Your task to perform on an android device: open sync settings in chrome Image 0: 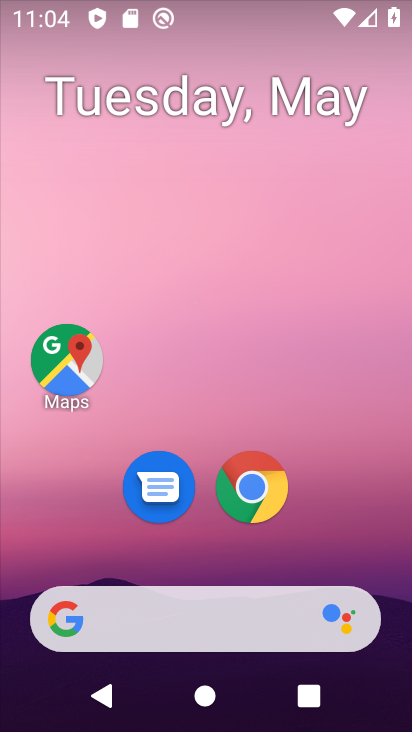
Step 0: drag from (313, 576) to (318, 200)
Your task to perform on an android device: open sync settings in chrome Image 1: 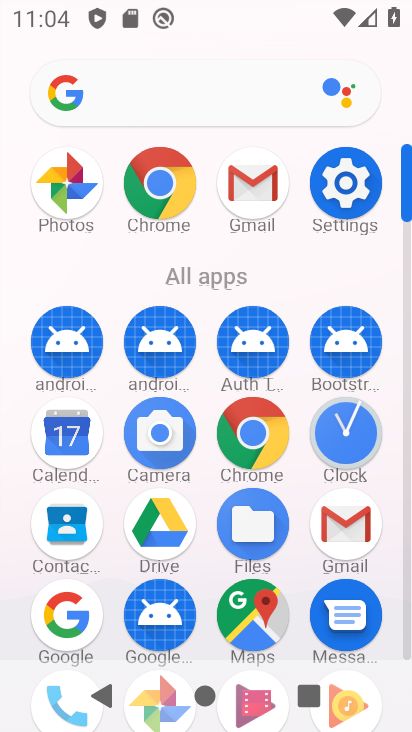
Step 1: click (166, 175)
Your task to perform on an android device: open sync settings in chrome Image 2: 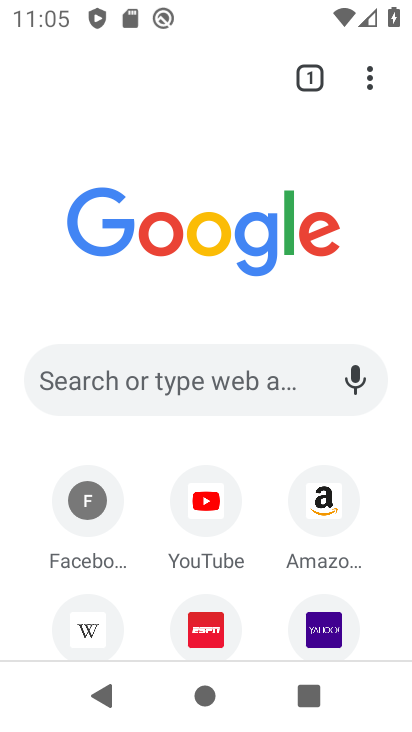
Step 2: click (385, 71)
Your task to perform on an android device: open sync settings in chrome Image 3: 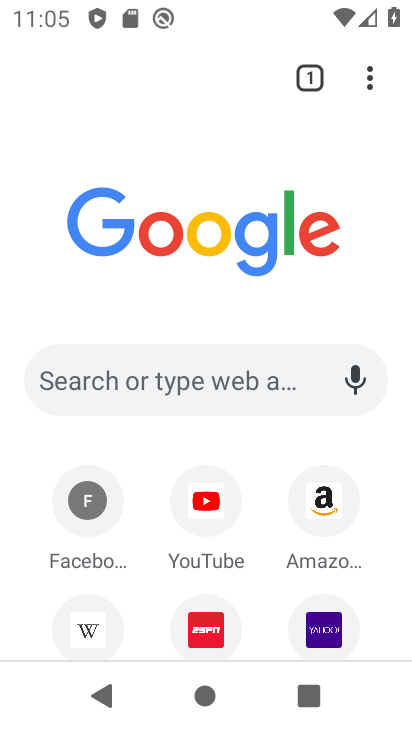
Step 3: click (373, 77)
Your task to perform on an android device: open sync settings in chrome Image 4: 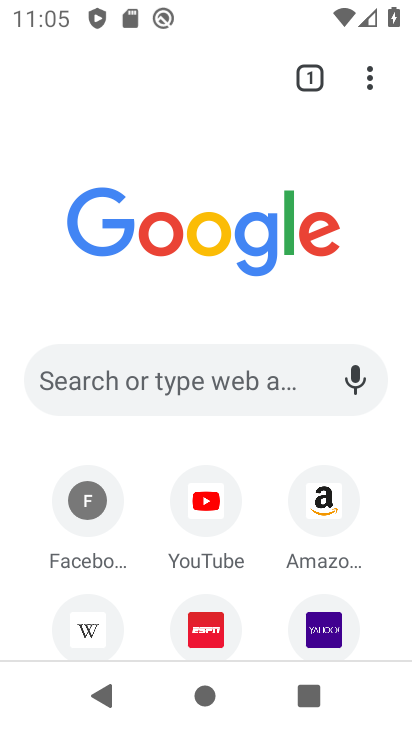
Step 4: click (377, 76)
Your task to perform on an android device: open sync settings in chrome Image 5: 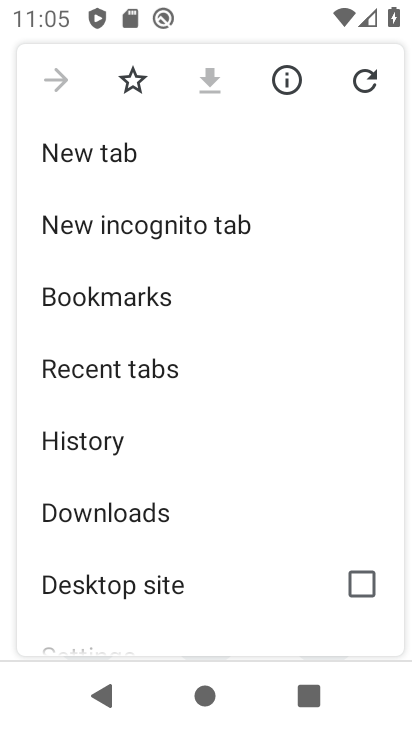
Step 5: drag from (179, 556) to (232, 355)
Your task to perform on an android device: open sync settings in chrome Image 6: 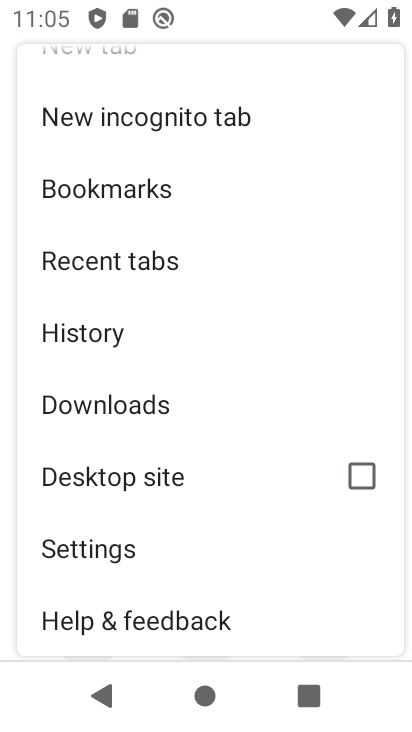
Step 6: click (97, 536)
Your task to perform on an android device: open sync settings in chrome Image 7: 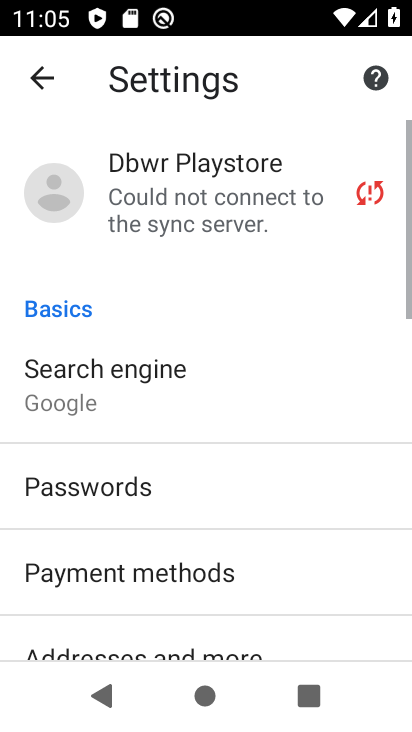
Step 7: click (122, 188)
Your task to perform on an android device: open sync settings in chrome Image 8: 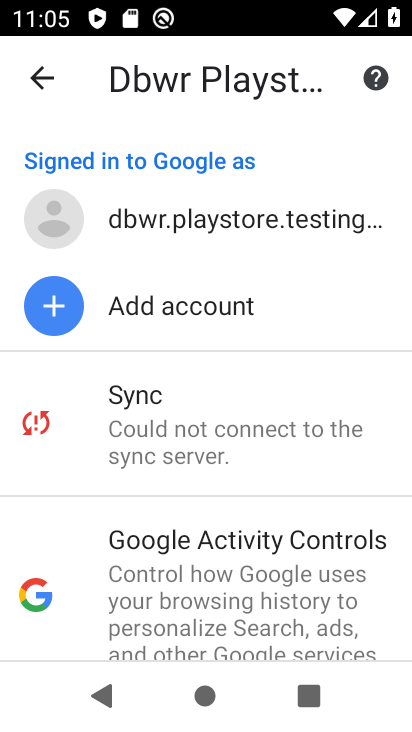
Step 8: task complete